Your task to perform on an android device: change the clock display to show seconds Image 0: 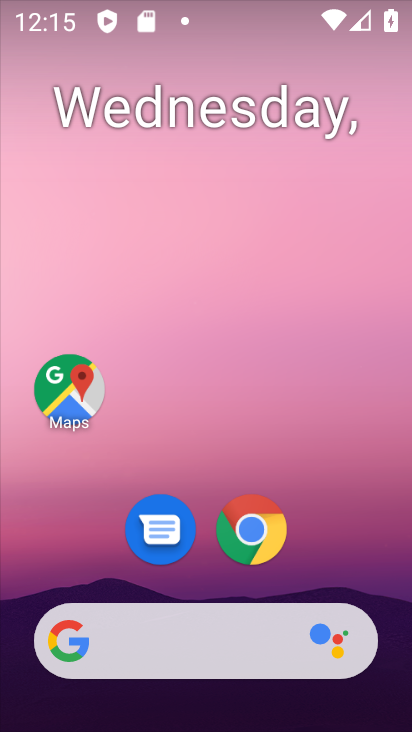
Step 0: drag from (346, 512) to (350, 175)
Your task to perform on an android device: change the clock display to show seconds Image 1: 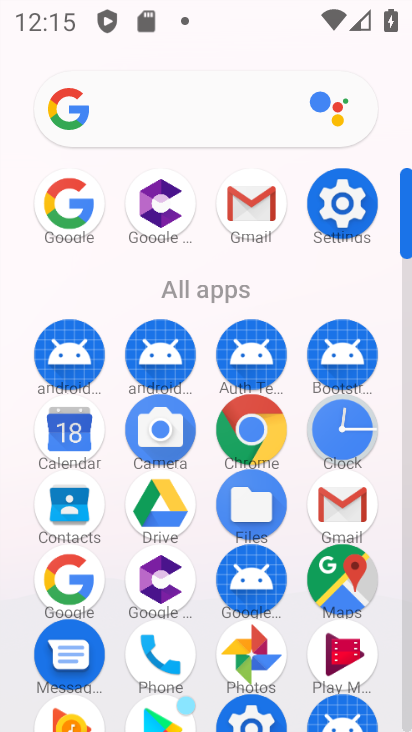
Step 1: click (342, 439)
Your task to perform on an android device: change the clock display to show seconds Image 2: 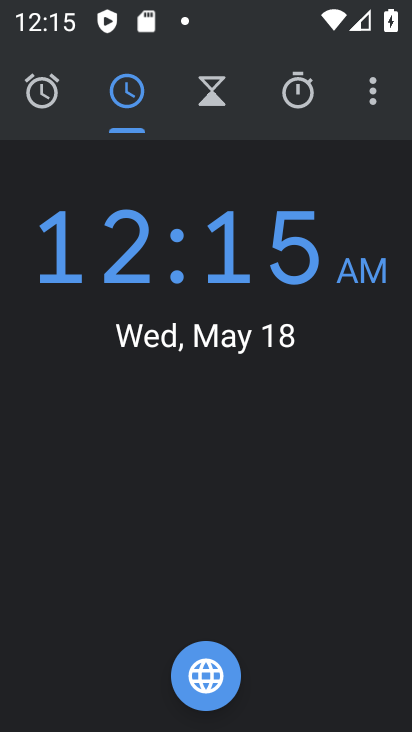
Step 2: click (374, 105)
Your task to perform on an android device: change the clock display to show seconds Image 3: 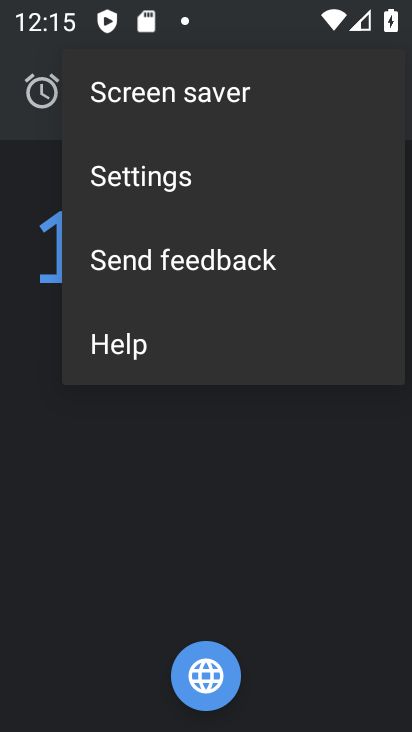
Step 3: click (216, 178)
Your task to perform on an android device: change the clock display to show seconds Image 4: 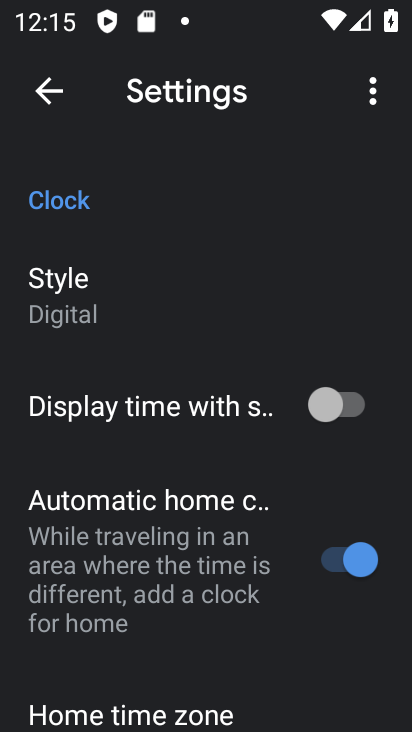
Step 4: click (338, 398)
Your task to perform on an android device: change the clock display to show seconds Image 5: 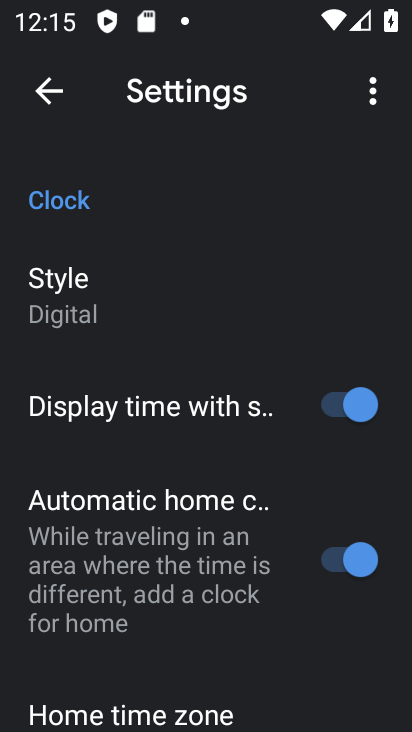
Step 5: task complete